Your task to perform on an android device: Open sound settings Image 0: 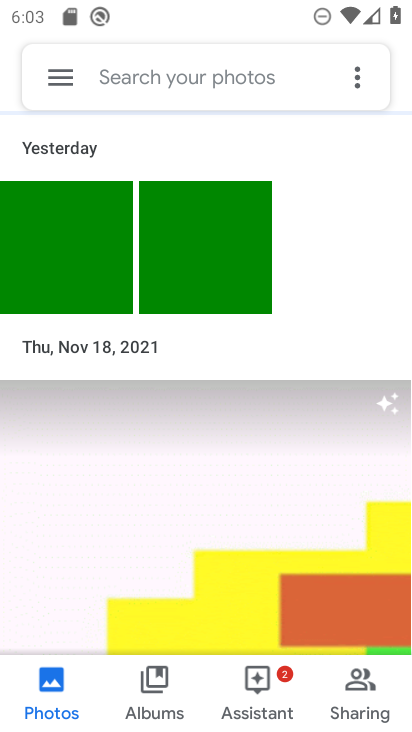
Step 0: press home button
Your task to perform on an android device: Open sound settings Image 1: 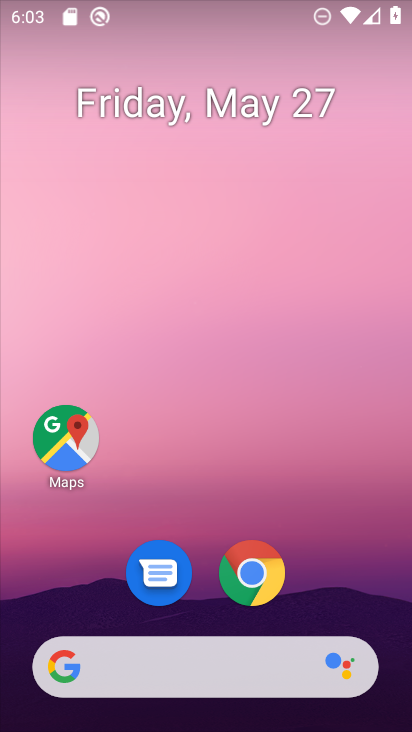
Step 1: drag from (207, 613) to (215, 27)
Your task to perform on an android device: Open sound settings Image 2: 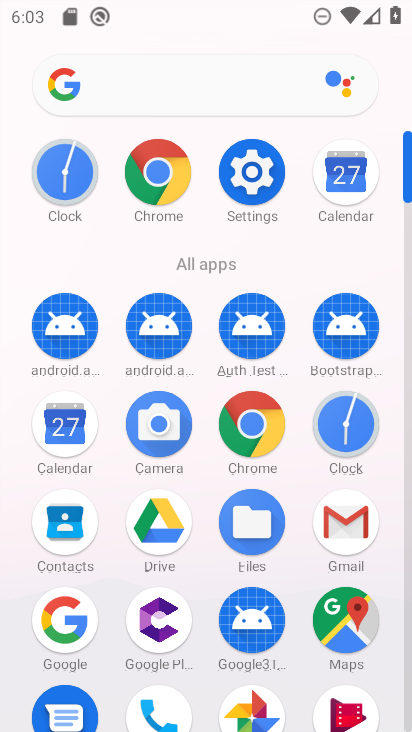
Step 2: click (253, 165)
Your task to perform on an android device: Open sound settings Image 3: 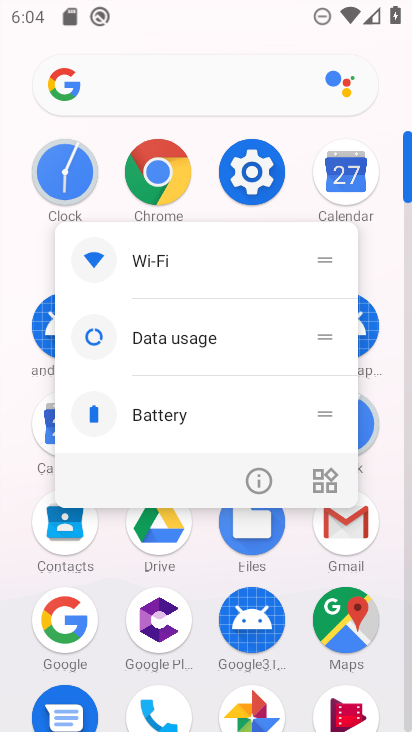
Step 3: click (260, 170)
Your task to perform on an android device: Open sound settings Image 4: 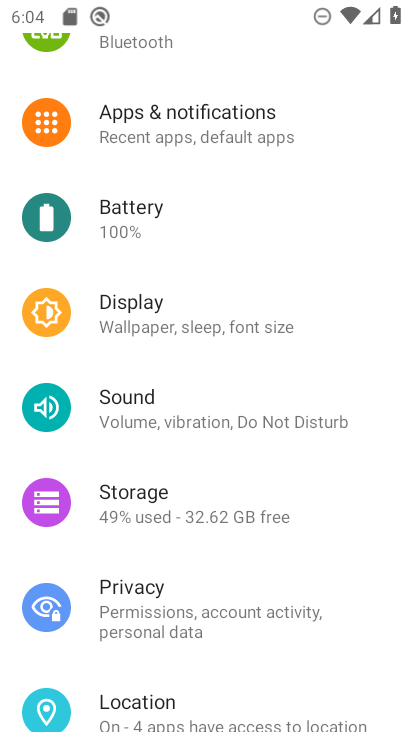
Step 4: click (175, 407)
Your task to perform on an android device: Open sound settings Image 5: 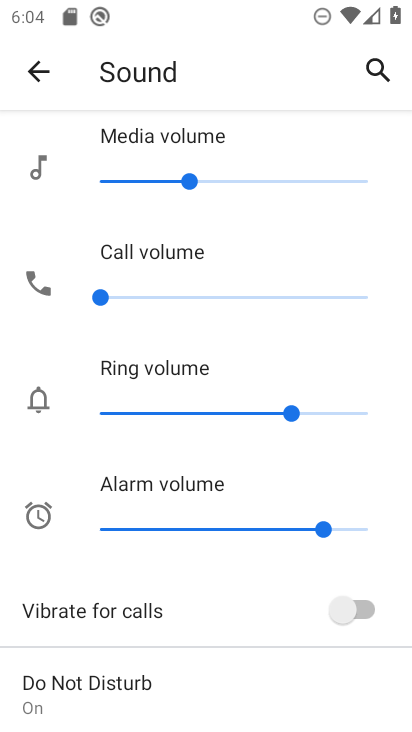
Step 5: drag from (179, 619) to (209, 71)
Your task to perform on an android device: Open sound settings Image 6: 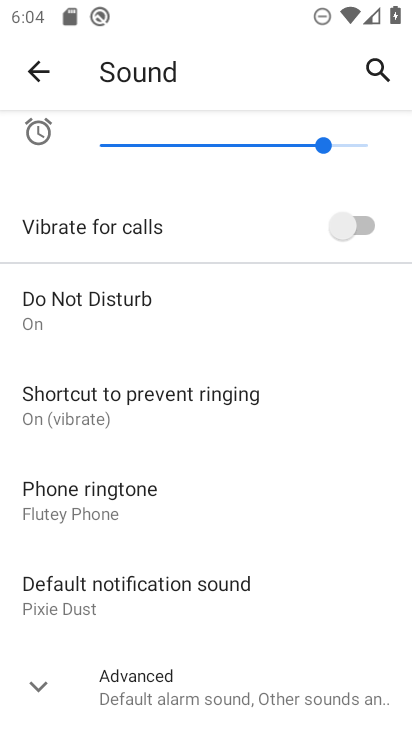
Step 6: click (136, 687)
Your task to perform on an android device: Open sound settings Image 7: 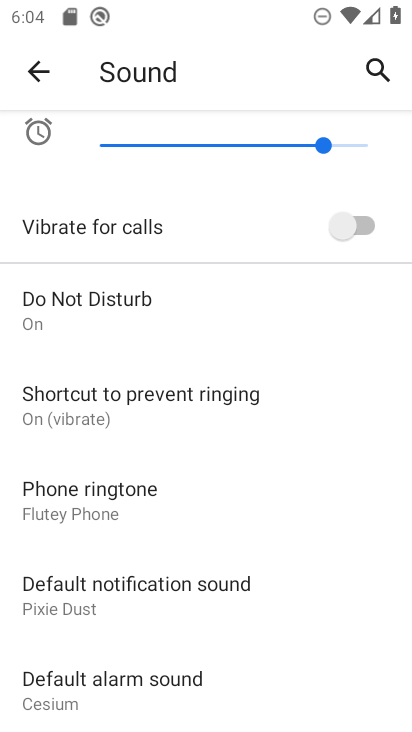
Step 7: task complete